Your task to perform on an android device: create a new album in the google photos Image 0: 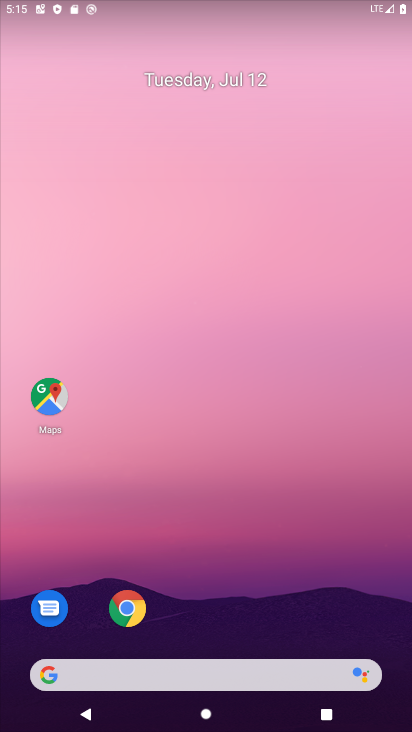
Step 0: drag from (185, 3) to (208, 520)
Your task to perform on an android device: create a new album in the google photos Image 1: 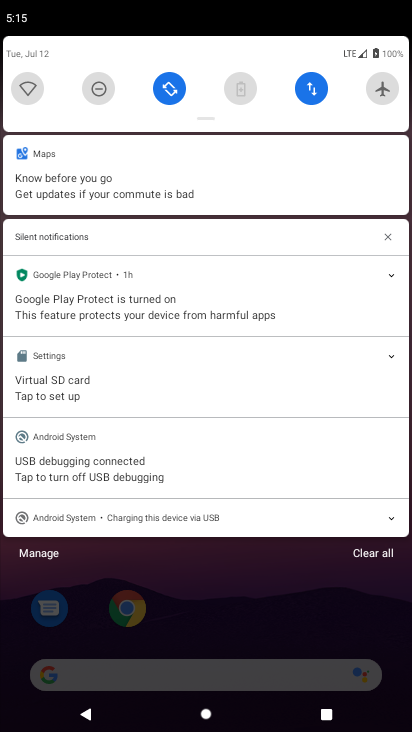
Step 1: click (277, 578)
Your task to perform on an android device: create a new album in the google photos Image 2: 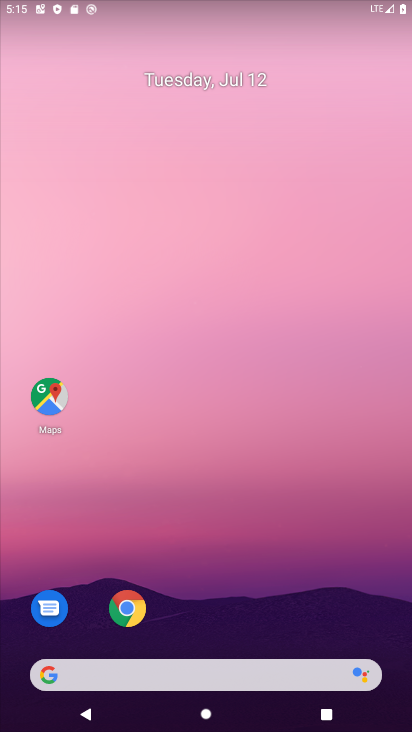
Step 2: drag from (198, 631) to (195, 182)
Your task to perform on an android device: create a new album in the google photos Image 3: 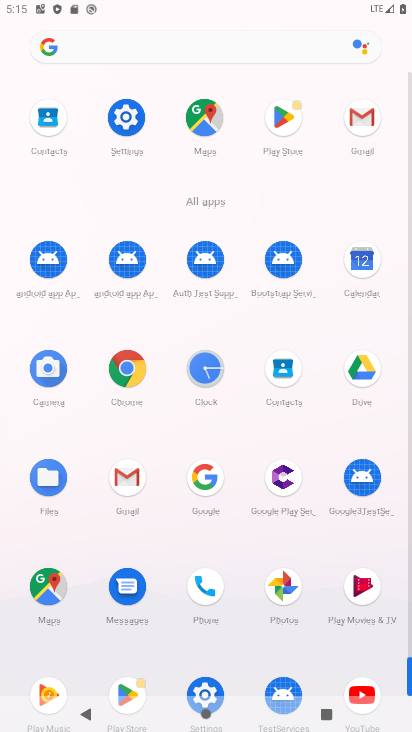
Step 3: click (270, 590)
Your task to perform on an android device: create a new album in the google photos Image 4: 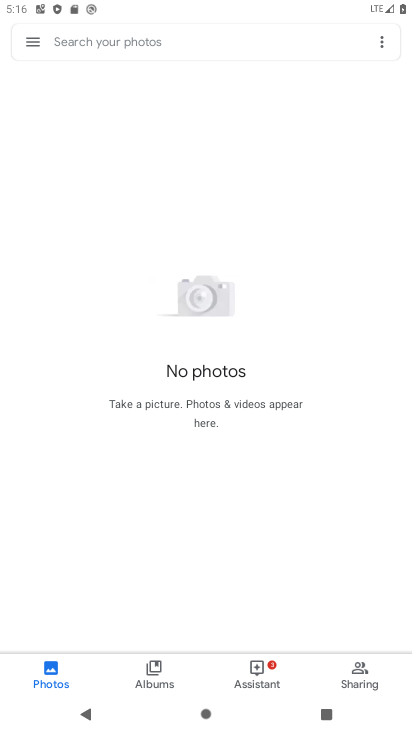
Step 4: task complete